Your task to perform on an android device: Open sound settings Image 0: 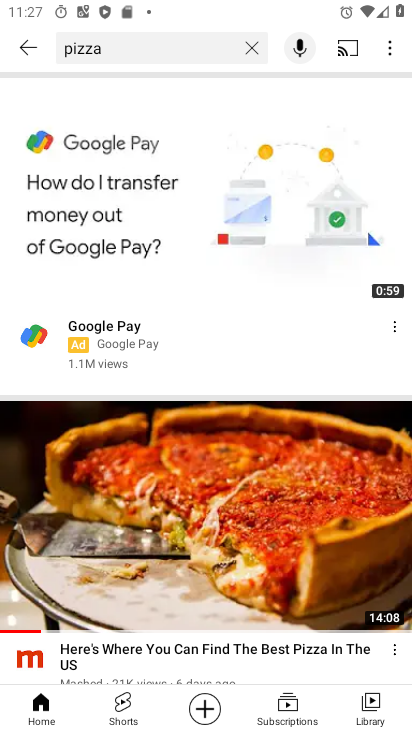
Step 0: press home button
Your task to perform on an android device: Open sound settings Image 1: 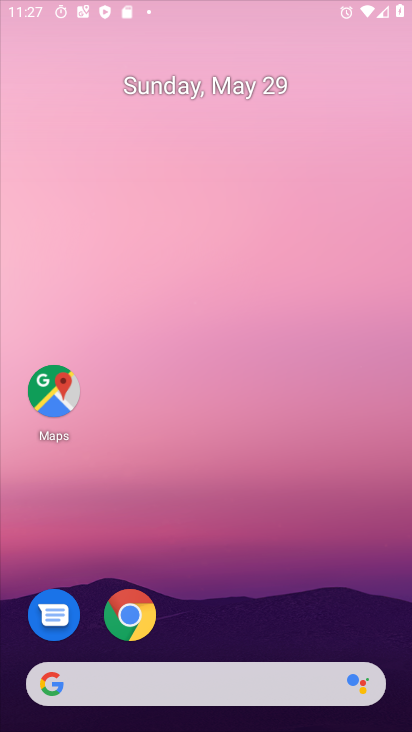
Step 1: drag from (215, 588) to (256, 78)
Your task to perform on an android device: Open sound settings Image 2: 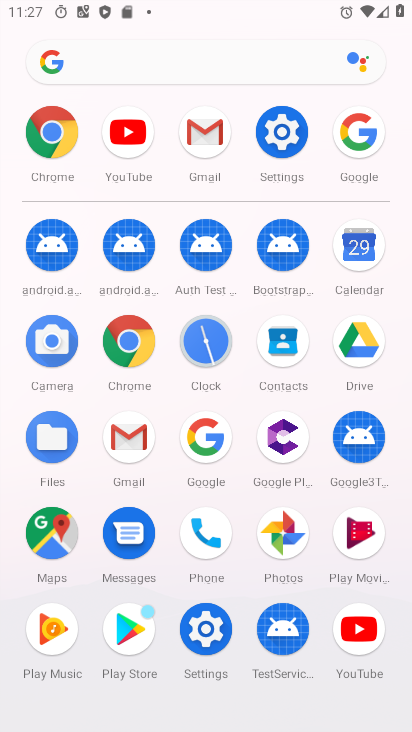
Step 2: click (288, 118)
Your task to perform on an android device: Open sound settings Image 3: 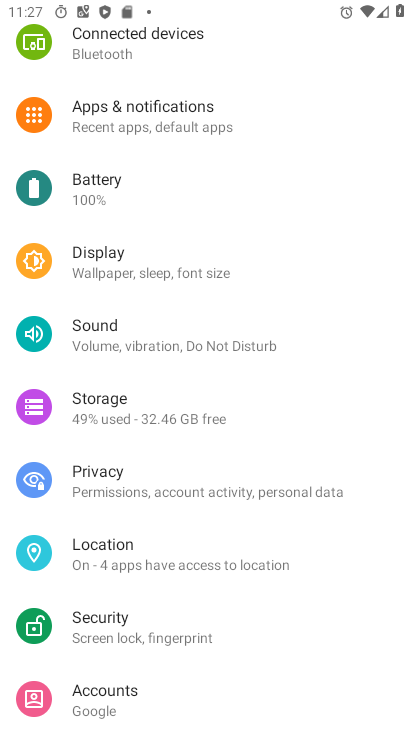
Step 3: click (115, 331)
Your task to perform on an android device: Open sound settings Image 4: 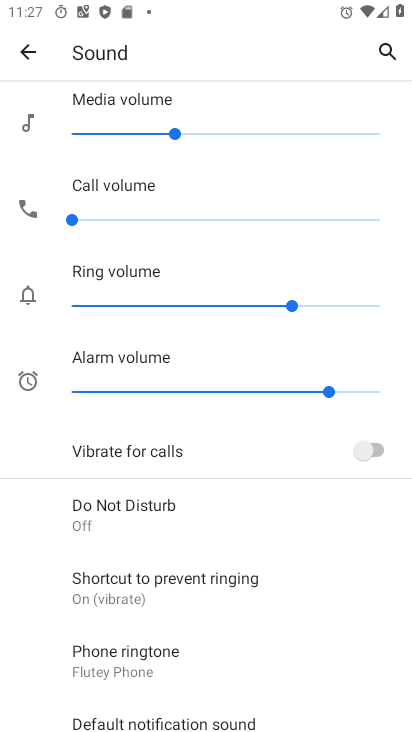
Step 4: task complete